Your task to perform on an android device: toggle location history Image 0: 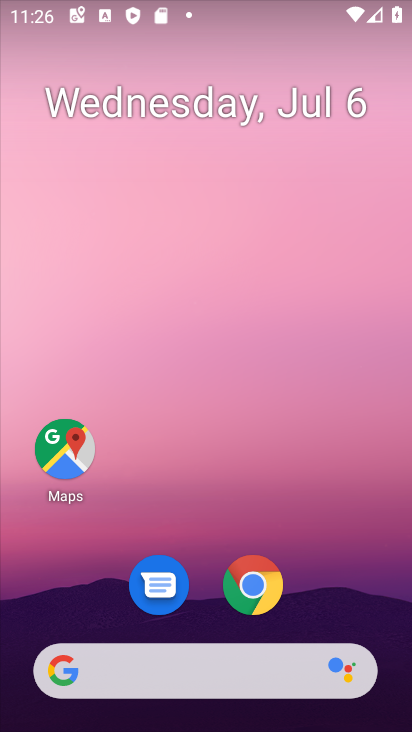
Step 0: drag from (217, 546) to (190, 17)
Your task to perform on an android device: toggle location history Image 1: 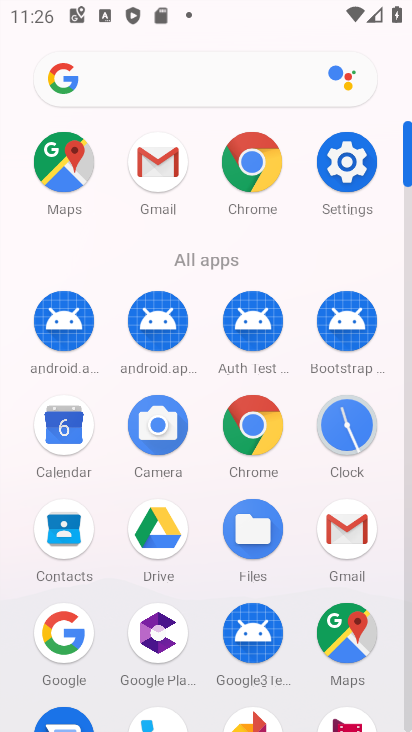
Step 1: click (343, 170)
Your task to perform on an android device: toggle location history Image 2: 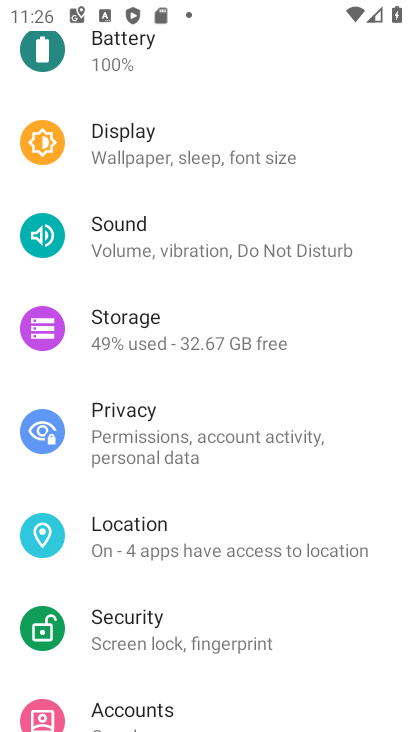
Step 2: click (219, 544)
Your task to perform on an android device: toggle location history Image 3: 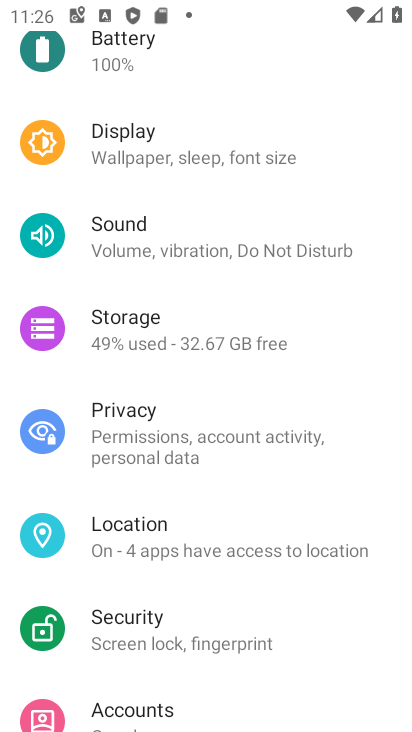
Step 3: click (219, 531)
Your task to perform on an android device: toggle location history Image 4: 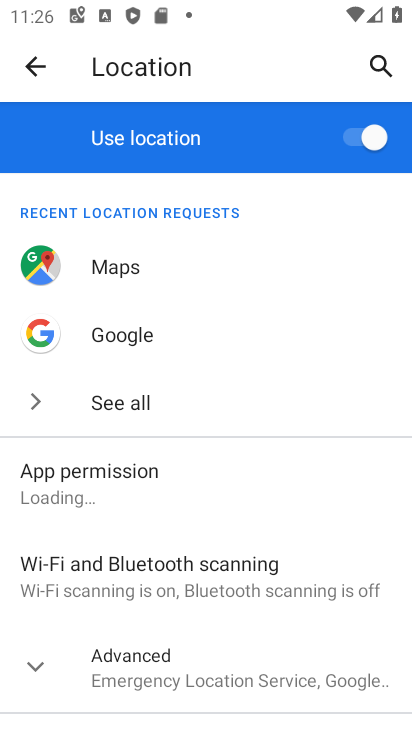
Step 4: drag from (219, 529) to (214, 145)
Your task to perform on an android device: toggle location history Image 5: 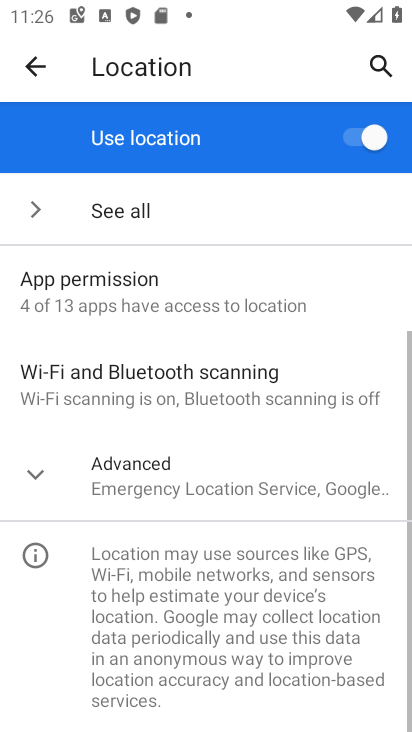
Step 5: click (39, 473)
Your task to perform on an android device: toggle location history Image 6: 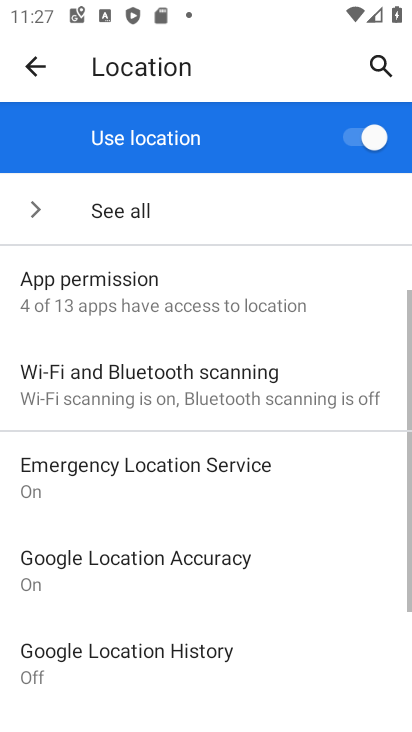
Step 6: drag from (239, 606) to (209, 439)
Your task to perform on an android device: toggle location history Image 7: 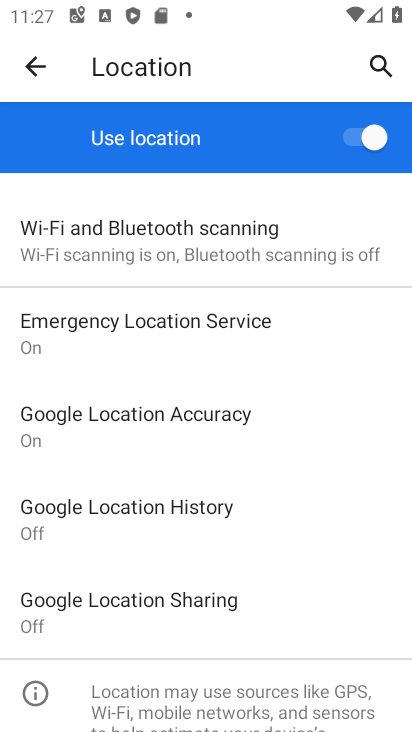
Step 7: click (209, 512)
Your task to perform on an android device: toggle location history Image 8: 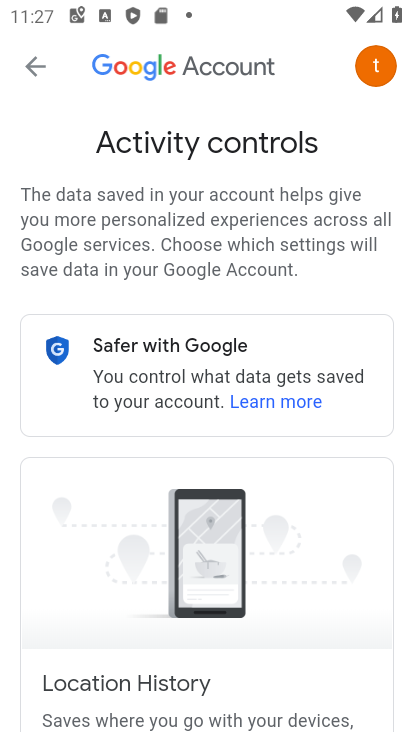
Step 8: drag from (287, 546) to (322, 162)
Your task to perform on an android device: toggle location history Image 9: 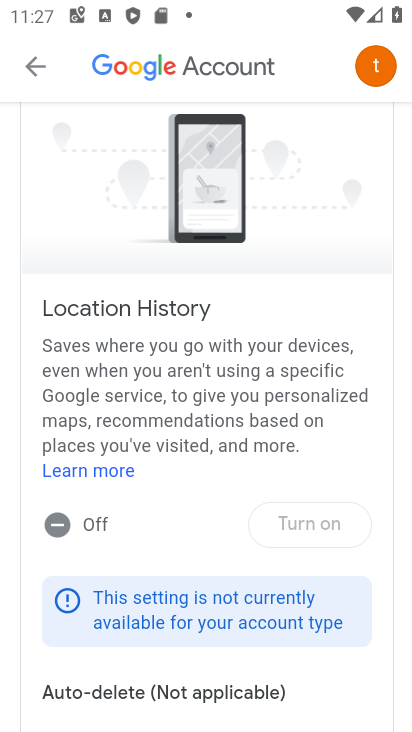
Step 9: click (300, 523)
Your task to perform on an android device: toggle location history Image 10: 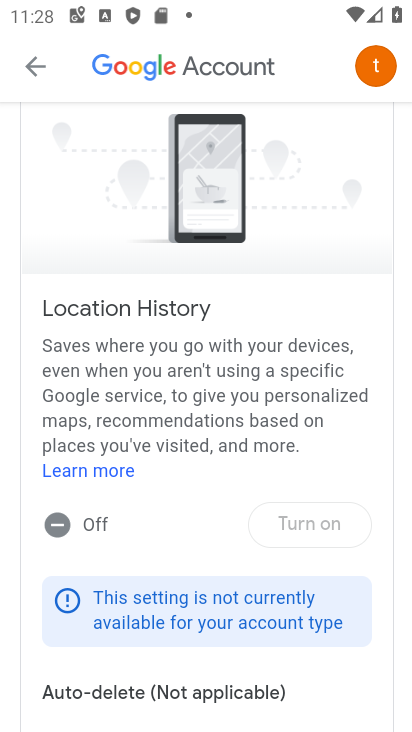
Step 10: click (311, 525)
Your task to perform on an android device: toggle location history Image 11: 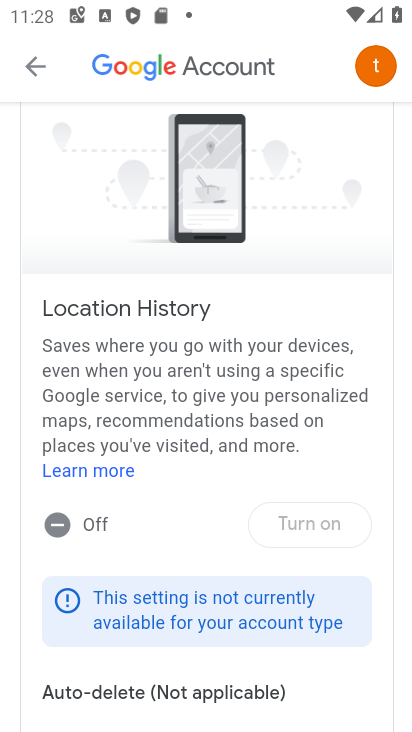
Step 11: task complete